Your task to perform on an android device: open app "Venmo" (install if not already installed) and enter user name: "bleedings@gmail.com" and password: "copied" Image 0: 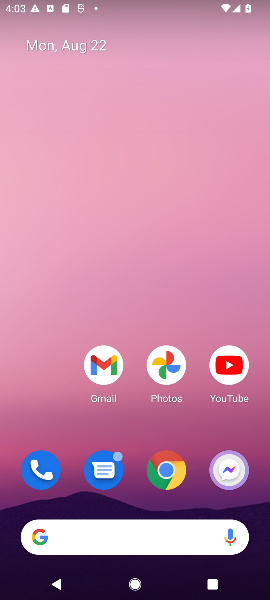
Step 0: drag from (123, 507) to (139, 185)
Your task to perform on an android device: open app "Venmo" (install if not already installed) and enter user name: "bleedings@gmail.com" and password: "copied" Image 1: 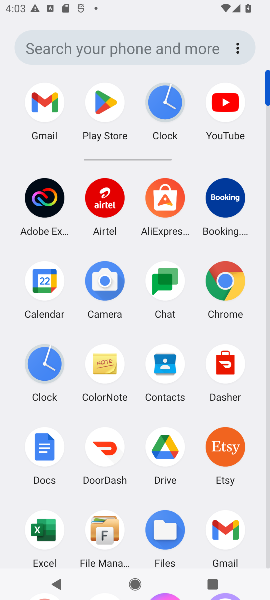
Step 1: click (114, 95)
Your task to perform on an android device: open app "Venmo" (install if not already installed) and enter user name: "bleedings@gmail.com" and password: "copied" Image 2: 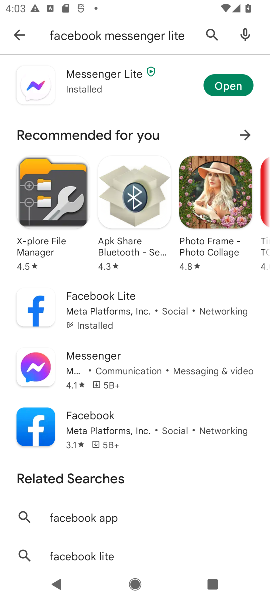
Step 2: click (20, 46)
Your task to perform on an android device: open app "Venmo" (install if not already installed) and enter user name: "bleedings@gmail.com" and password: "copied" Image 3: 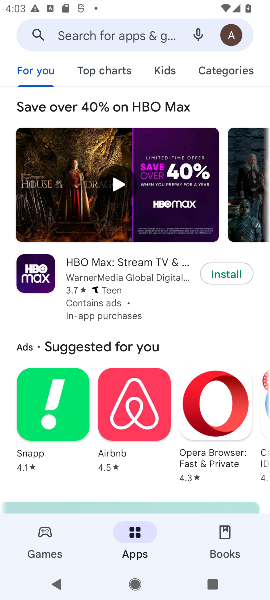
Step 3: click (101, 24)
Your task to perform on an android device: open app "Venmo" (install if not already installed) and enter user name: "bleedings@gmail.com" and password: "copied" Image 4: 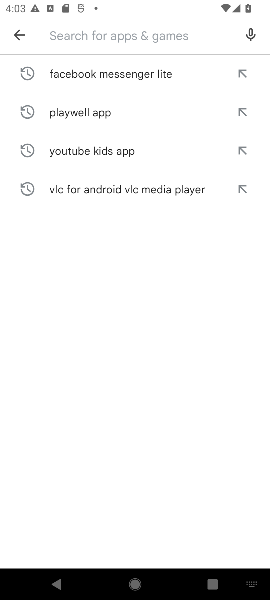
Step 4: type "Venmo "
Your task to perform on an android device: open app "Venmo" (install if not already installed) and enter user name: "bleedings@gmail.com" and password: "copied" Image 5: 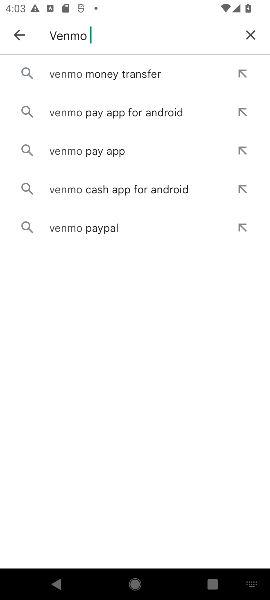
Step 5: click (115, 118)
Your task to perform on an android device: open app "Venmo" (install if not already installed) and enter user name: "bleedings@gmail.com" and password: "copied" Image 6: 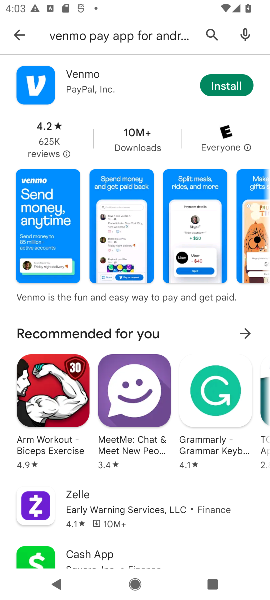
Step 6: click (224, 81)
Your task to perform on an android device: open app "Venmo" (install if not already installed) and enter user name: "bleedings@gmail.com" and password: "copied" Image 7: 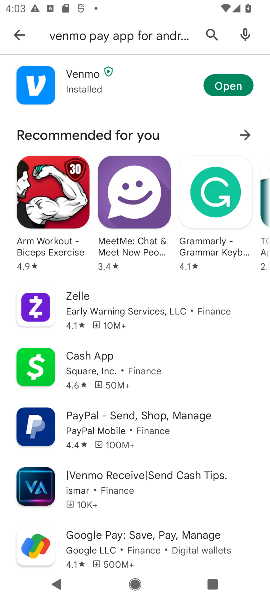
Step 7: click (220, 85)
Your task to perform on an android device: open app "Venmo" (install if not already installed) and enter user name: "bleedings@gmail.com" and password: "copied" Image 8: 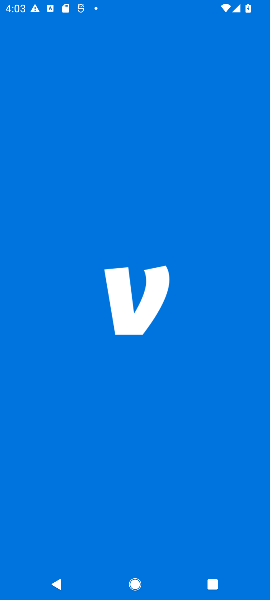
Step 8: task complete